Your task to perform on an android device: Empty the shopping cart on ebay. Add "bose soundlink mini" to the cart on ebay, then select checkout. Image 0: 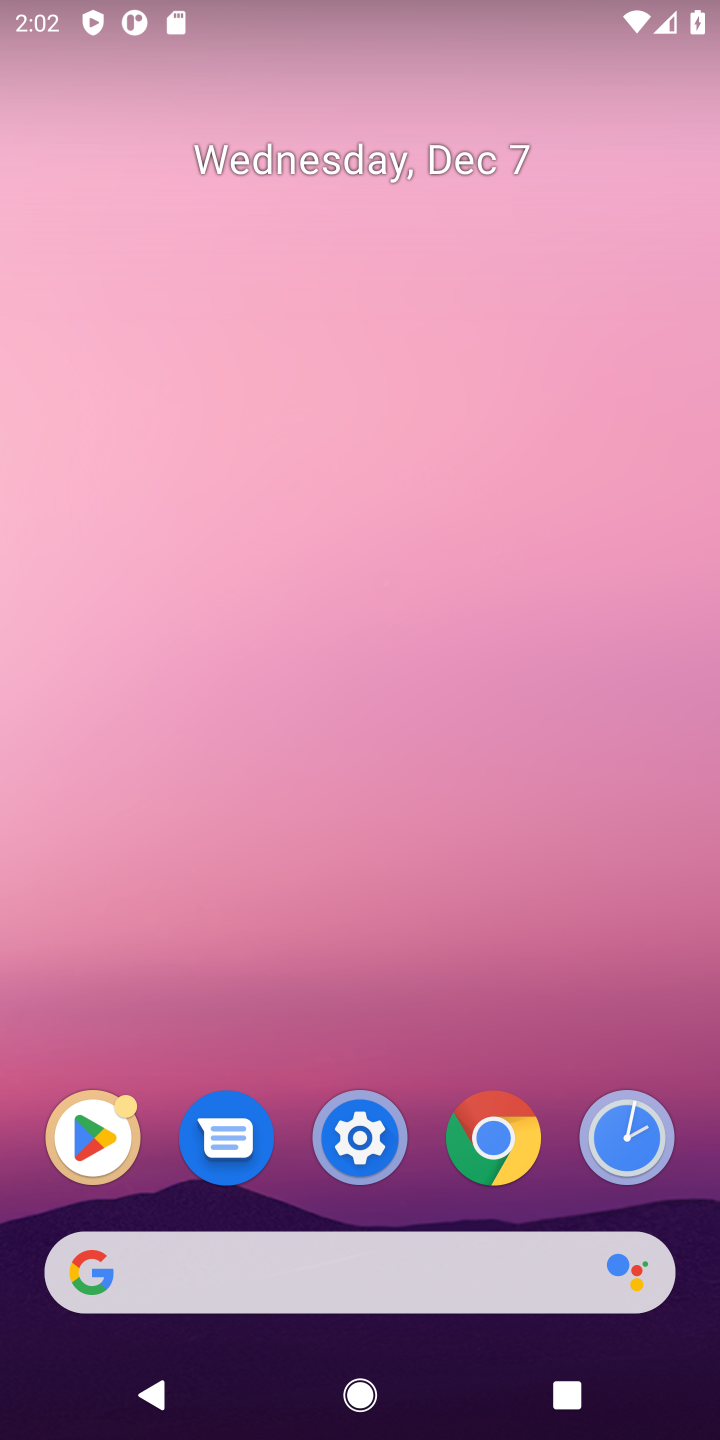
Step 0: click (403, 1285)
Your task to perform on an android device: Empty the shopping cart on ebay. Add "bose soundlink mini" to the cart on ebay, then select checkout. Image 1: 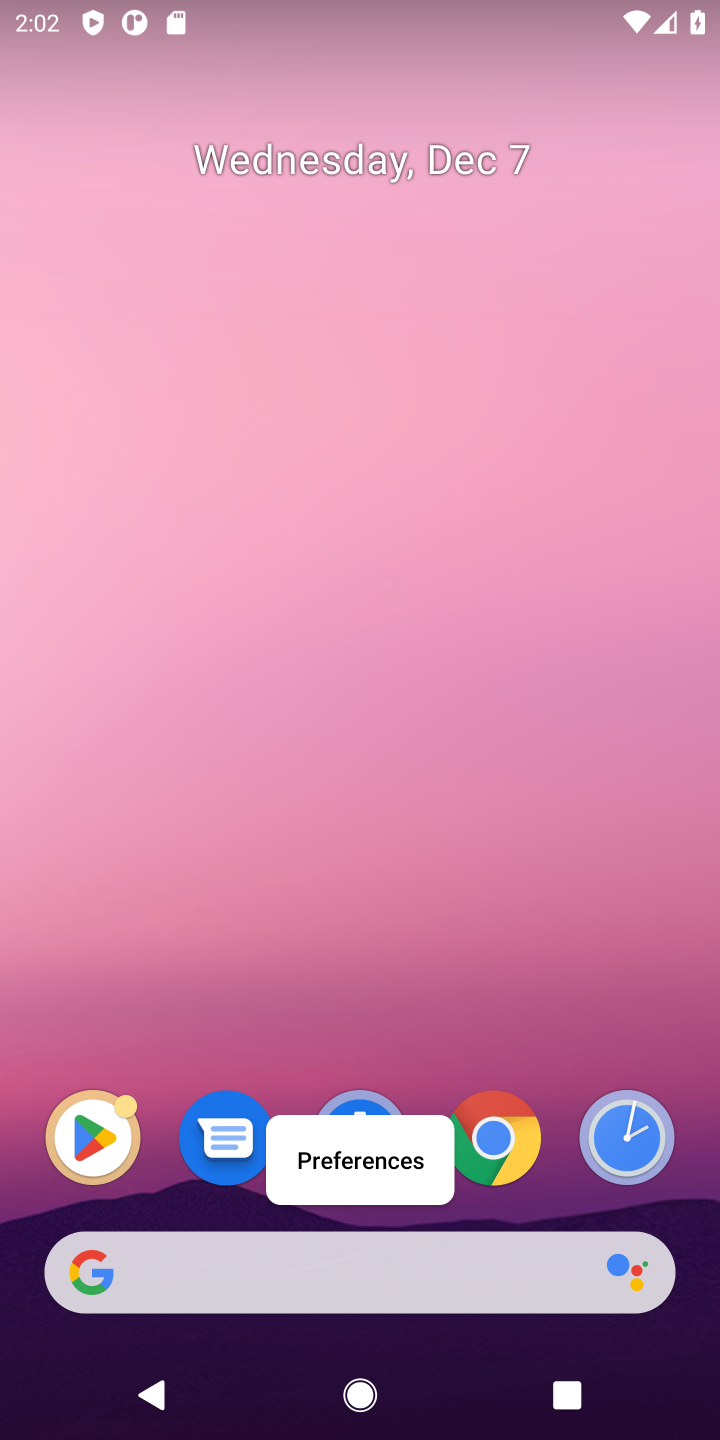
Step 1: click (318, 1266)
Your task to perform on an android device: Empty the shopping cart on ebay. Add "bose soundlink mini" to the cart on ebay, then select checkout. Image 2: 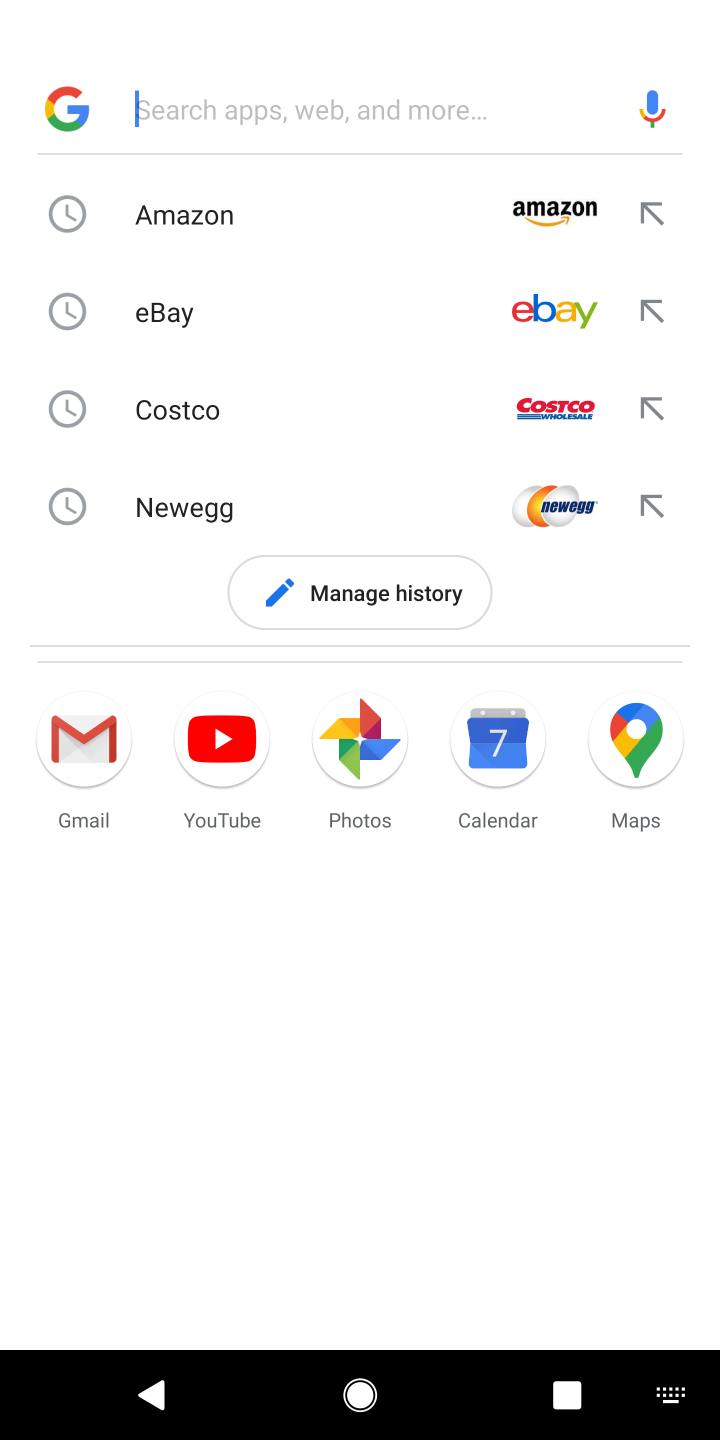
Step 2: click (381, 309)
Your task to perform on an android device: Empty the shopping cart on ebay. Add "bose soundlink mini" to the cart on ebay, then select checkout. Image 3: 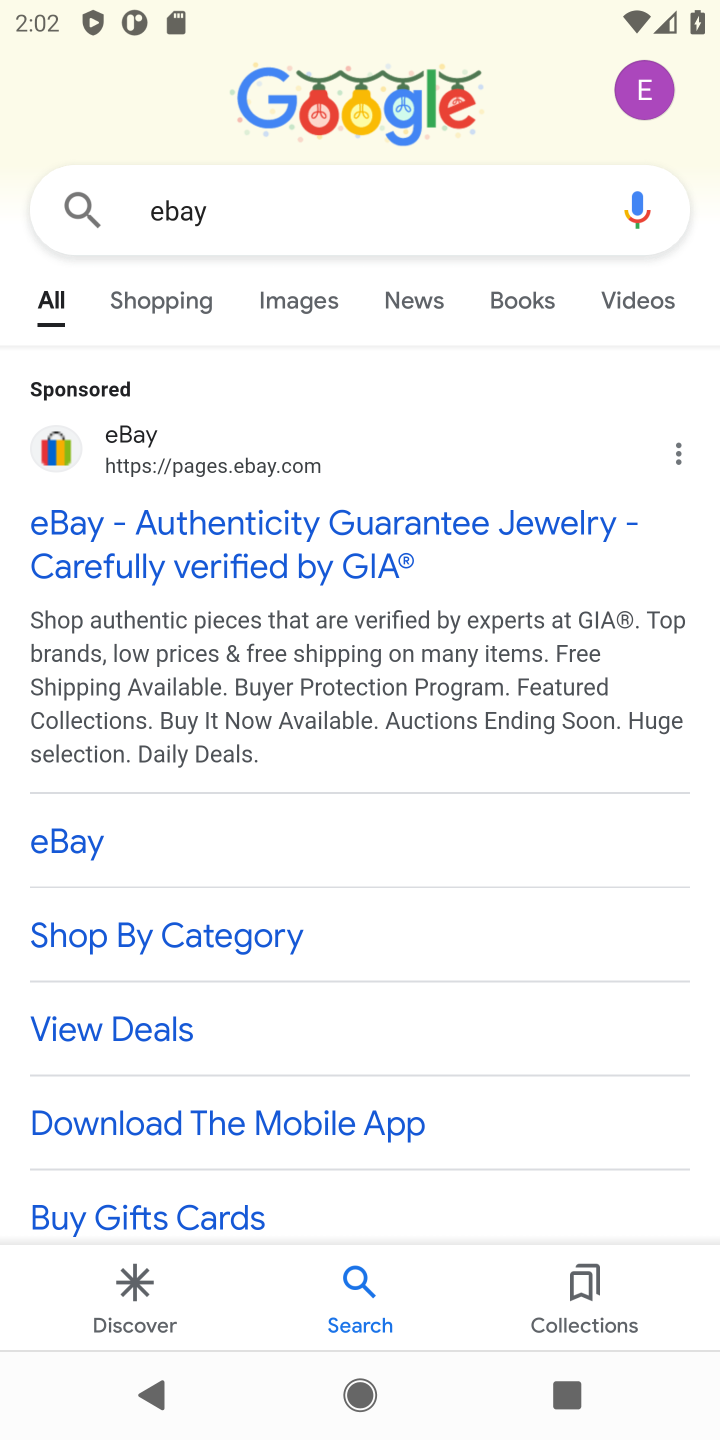
Step 3: click (285, 511)
Your task to perform on an android device: Empty the shopping cart on ebay. Add "bose soundlink mini" to the cart on ebay, then select checkout. Image 4: 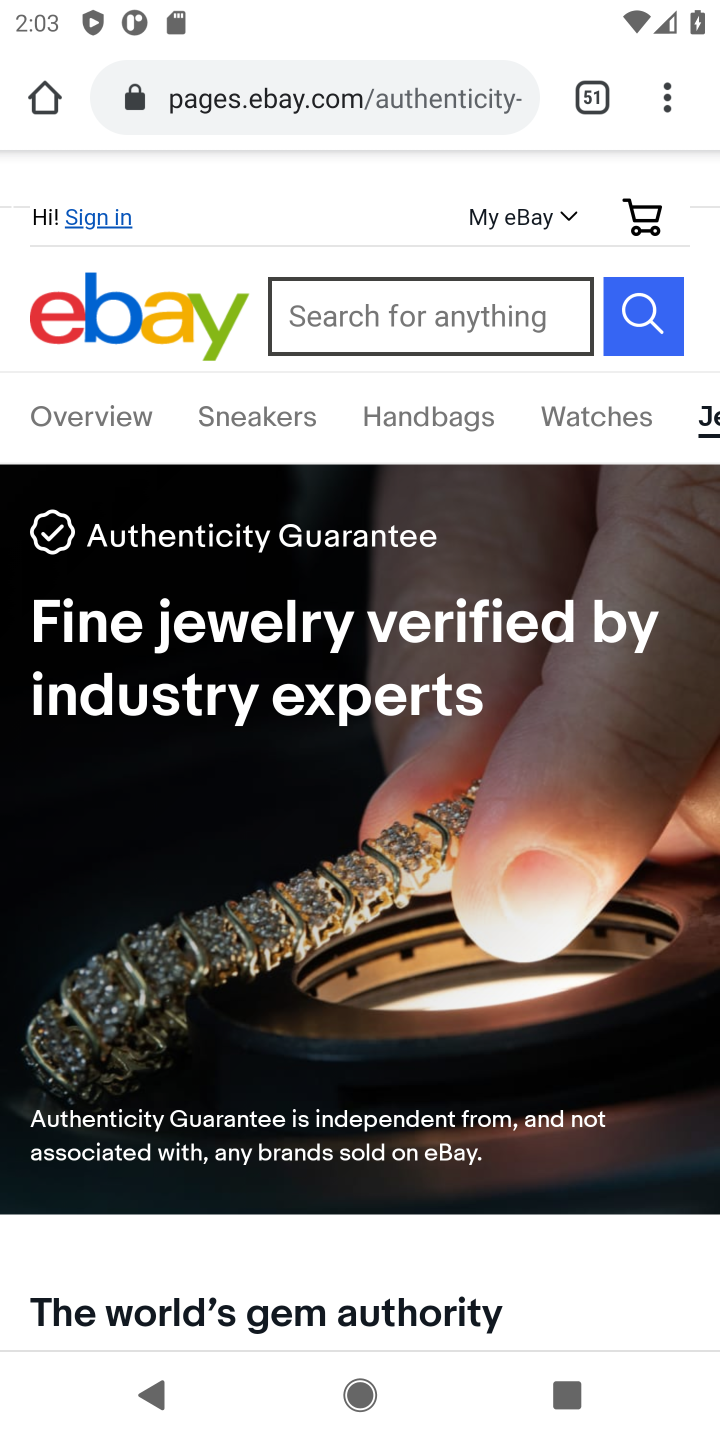
Step 4: click (423, 325)
Your task to perform on an android device: Empty the shopping cart on ebay. Add "bose soundlink mini" to the cart on ebay, then select checkout. Image 5: 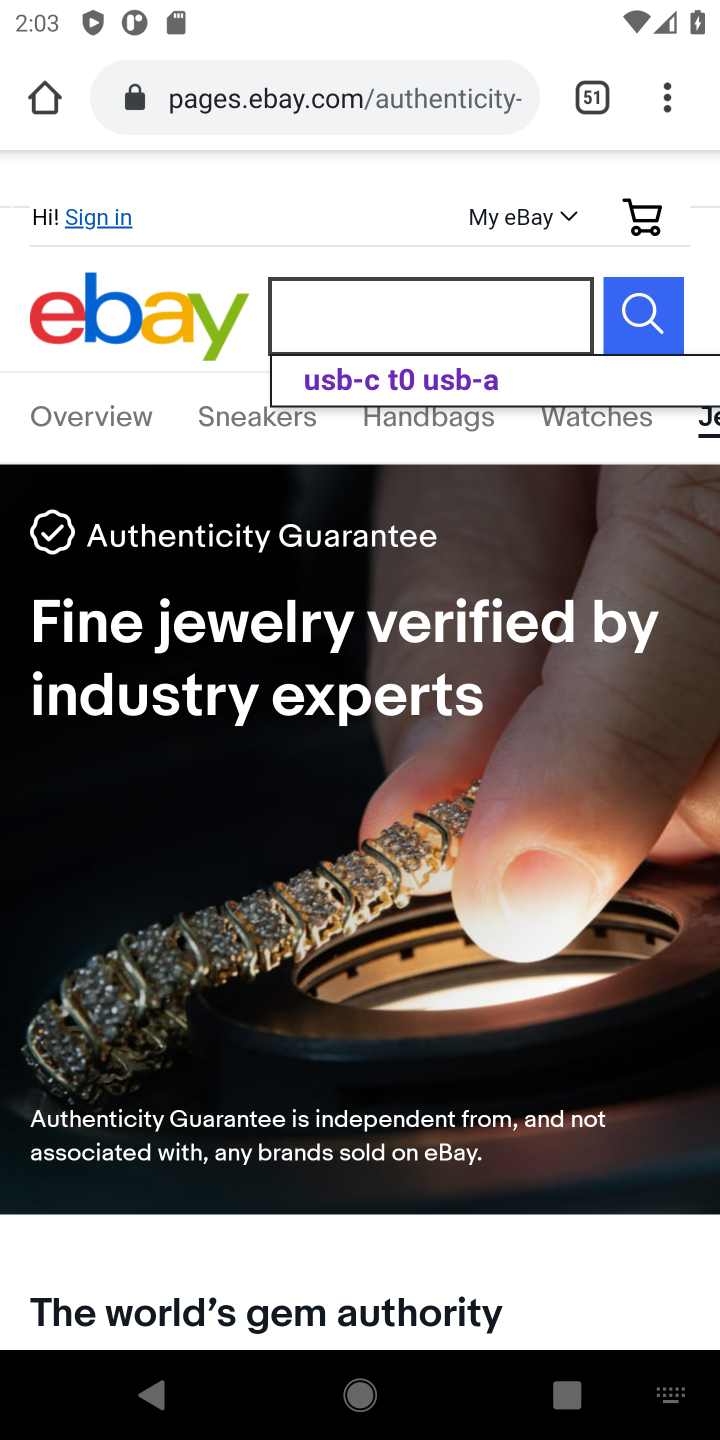
Step 5: type "soundlink"
Your task to perform on an android device: Empty the shopping cart on ebay. Add "bose soundlink mini" to the cart on ebay, then select checkout. Image 6: 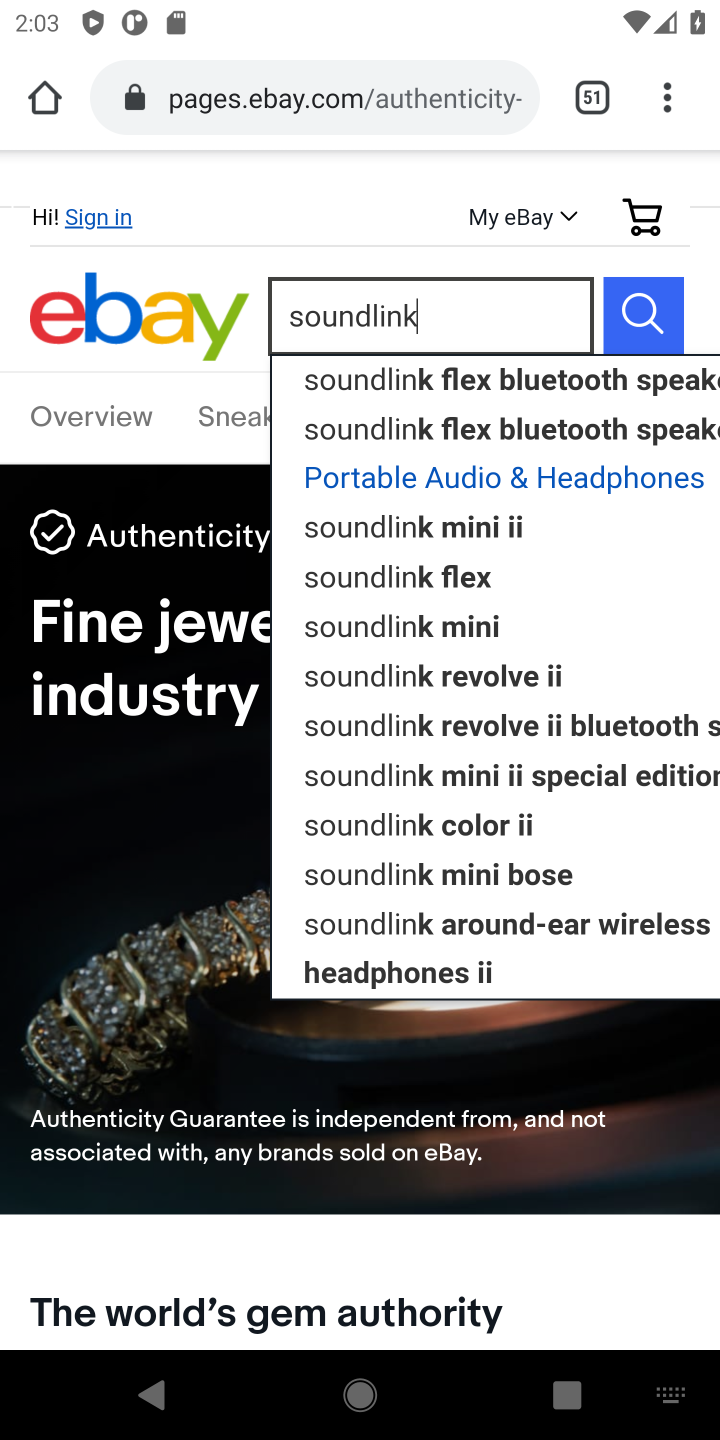
Step 6: click (531, 378)
Your task to perform on an android device: Empty the shopping cart on ebay. Add "bose soundlink mini" to the cart on ebay, then select checkout. Image 7: 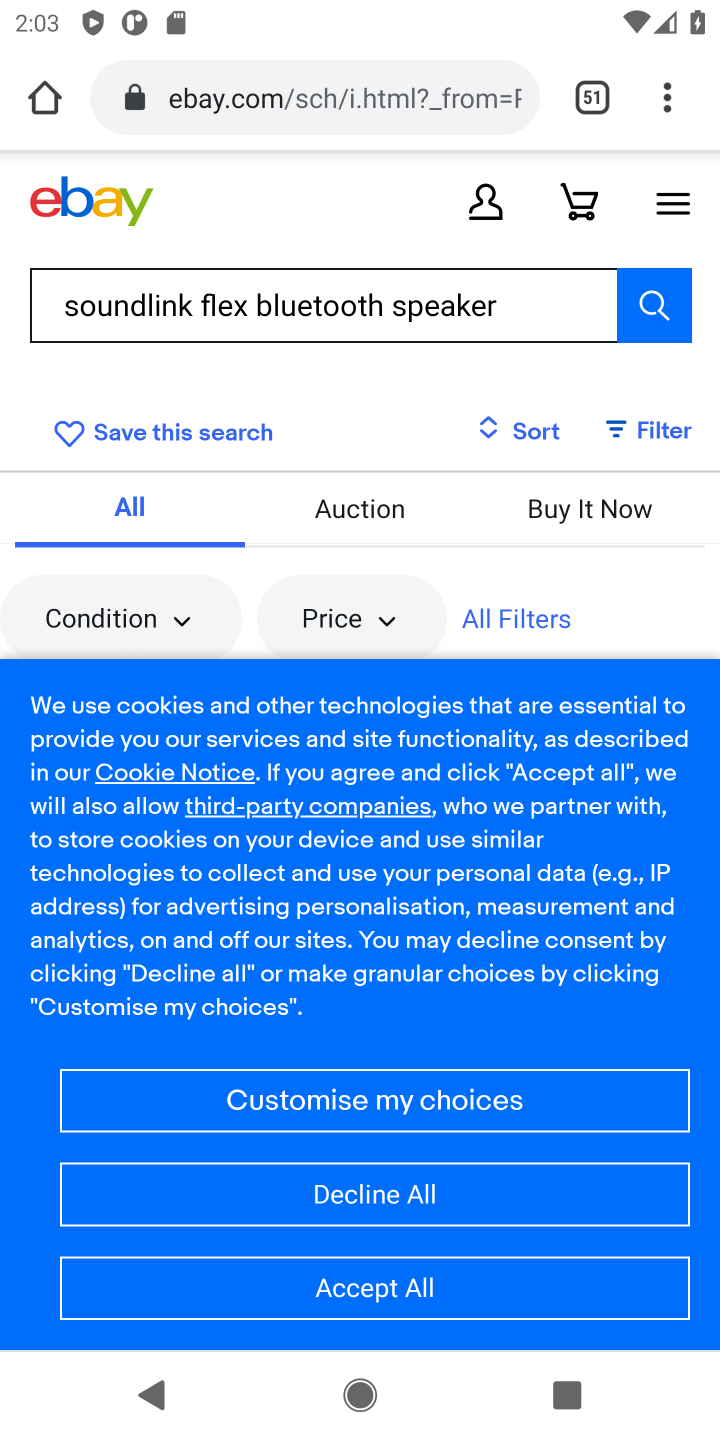
Step 7: click (442, 1255)
Your task to perform on an android device: Empty the shopping cart on ebay. Add "bose soundlink mini" to the cart on ebay, then select checkout. Image 8: 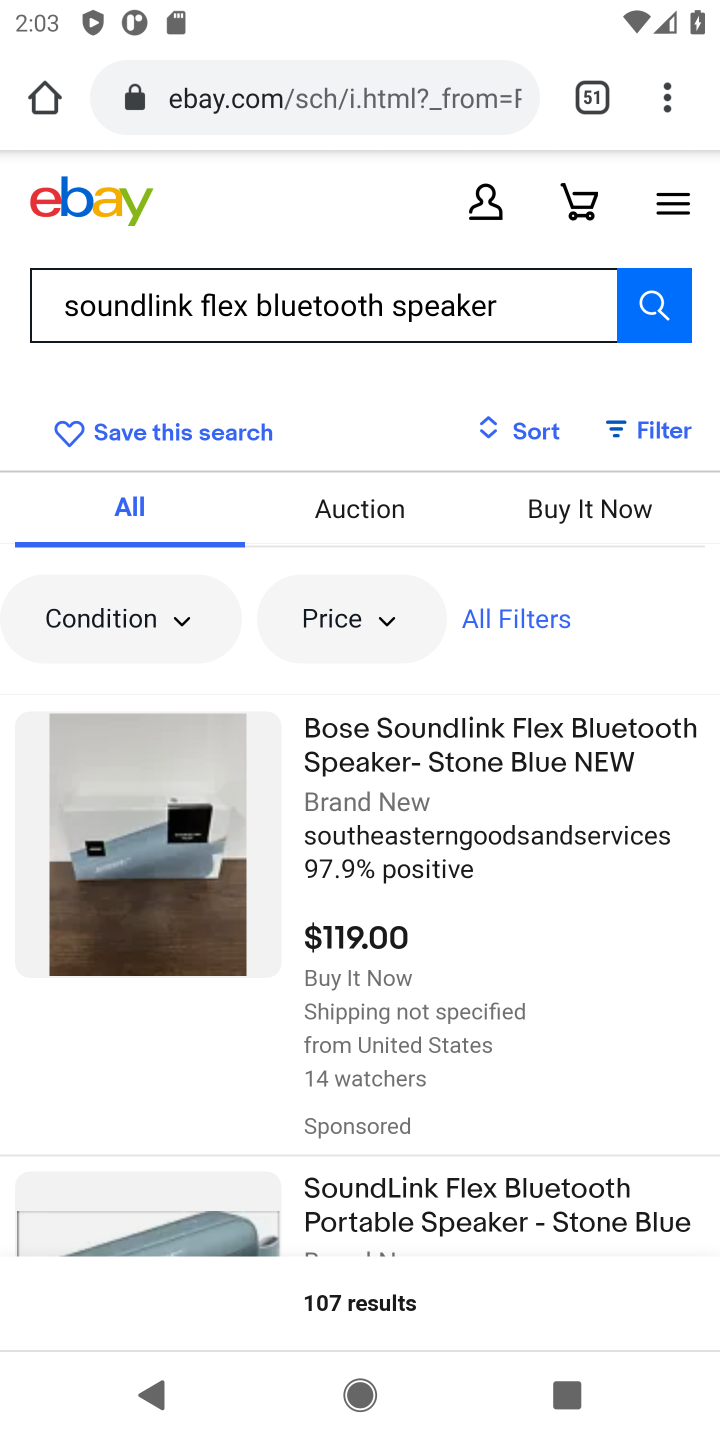
Step 8: click (430, 1280)
Your task to perform on an android device: Empty the shopping cart on ebay. Add "bose soundlink mini" to the cart on ebay, then select checkout. Image 9: 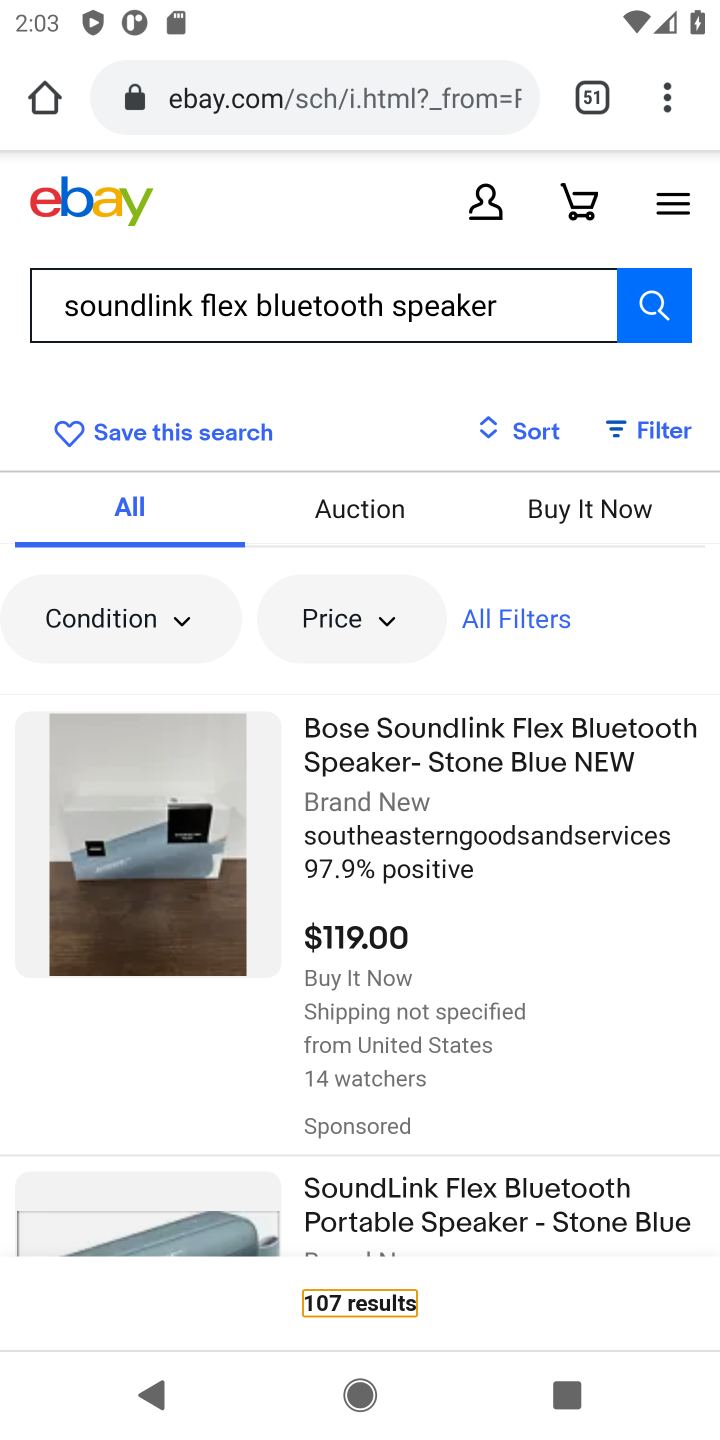
Step 9: click (414, 868)
Your task to perform on an android device: Empty the shopping cart on ebay. Add "bose soundlink mini" to the cart on ebay, then select checkout. Image 10: 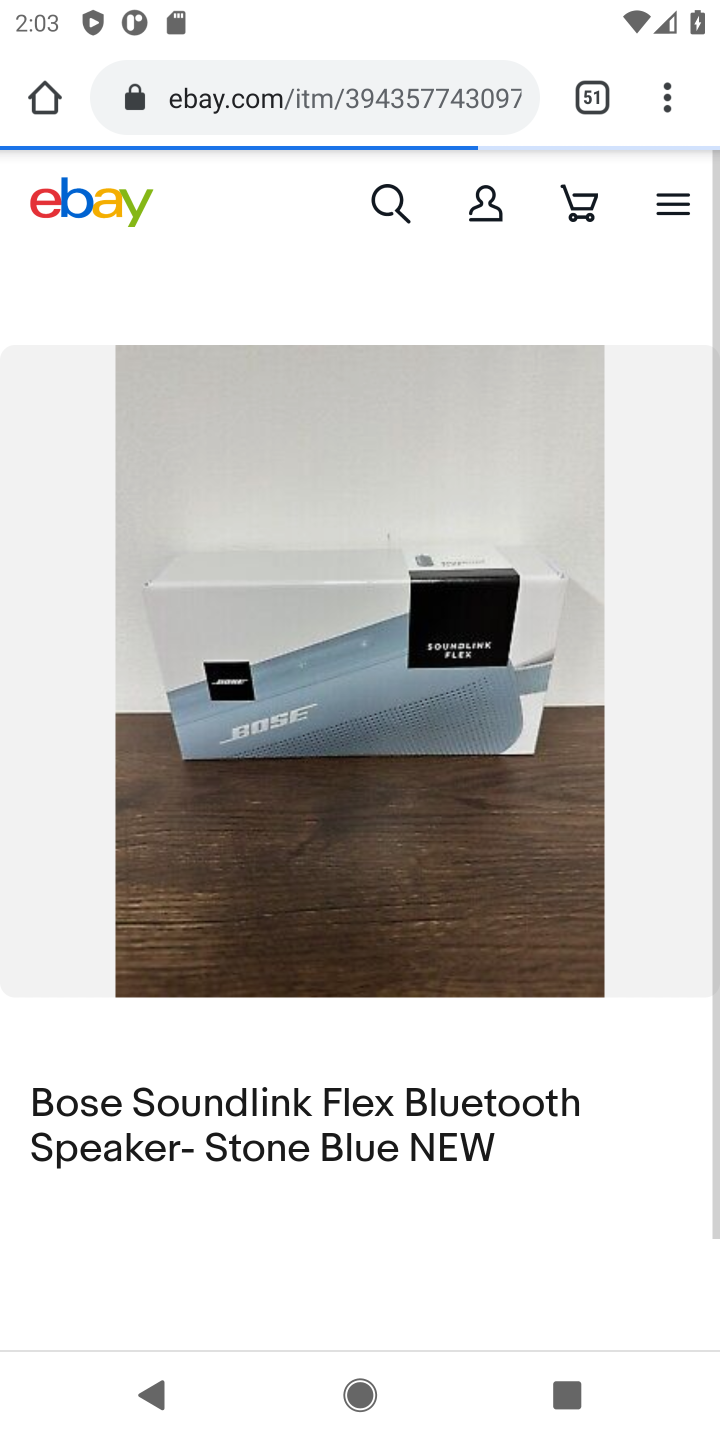
Step 10: task complete